Your task to perform on an android device: open chrome privacy settings Image 0: 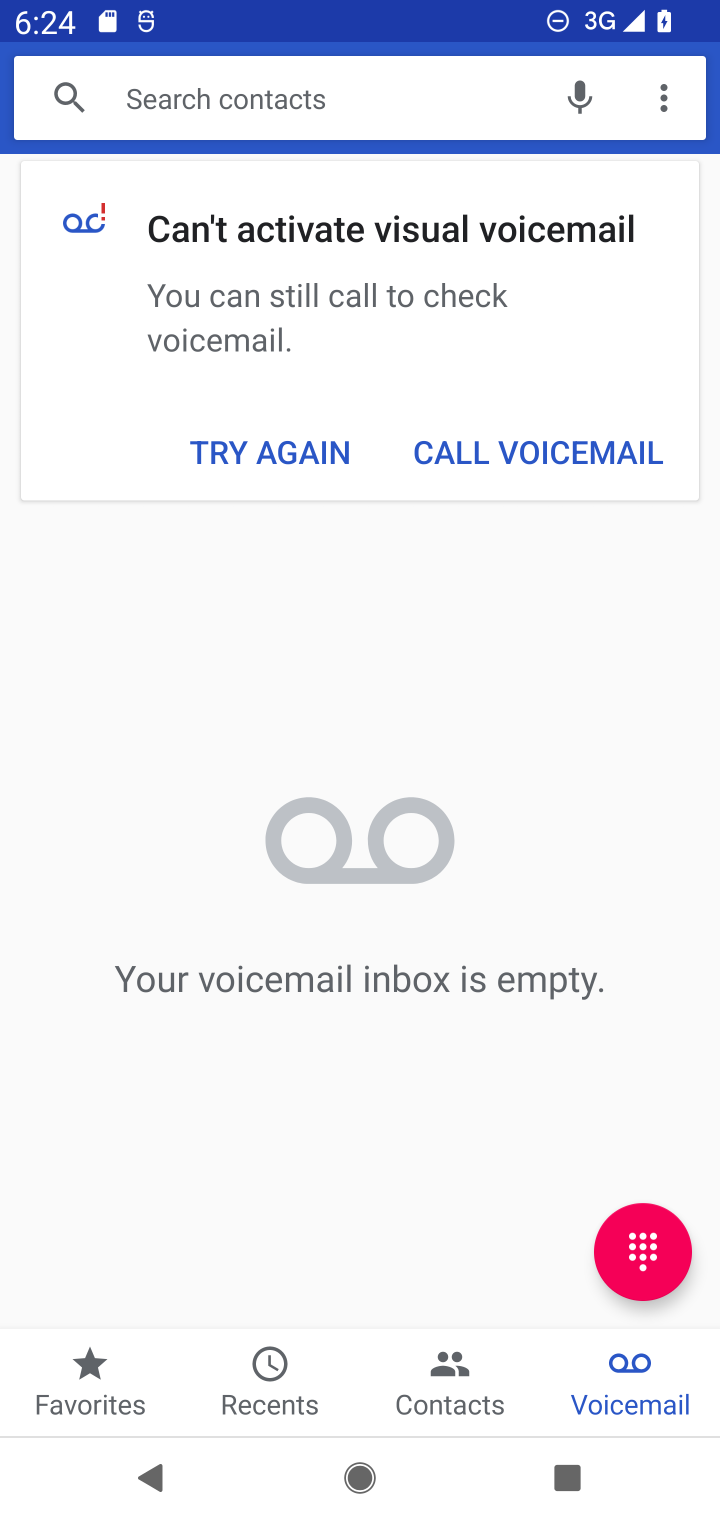
Step 0: press home button
Your task to perform on an android device: open chrome privacy settings Image 1: 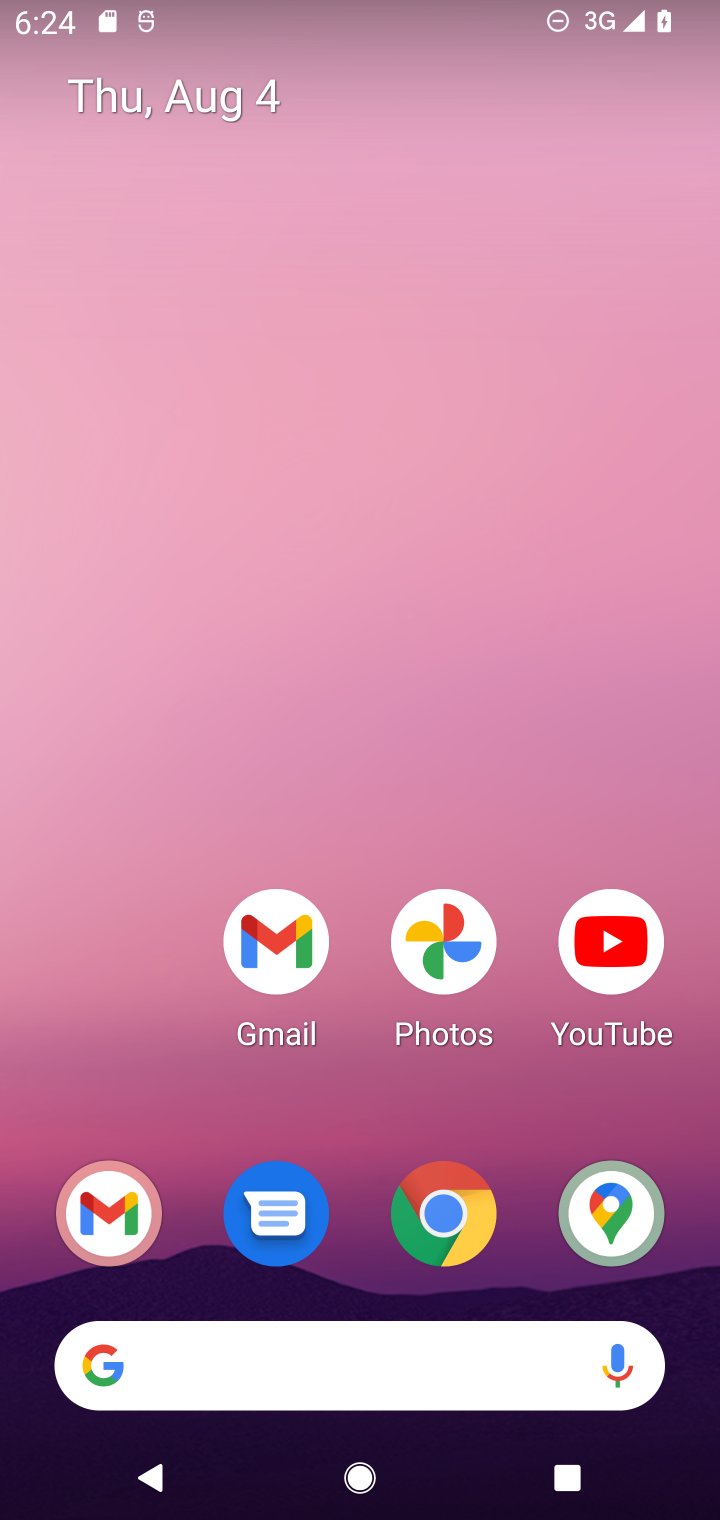
Step 1: drag from (163, 1148) to (167, 412)
Your task to perform on an android device: open chrome privacy settings Image 2: 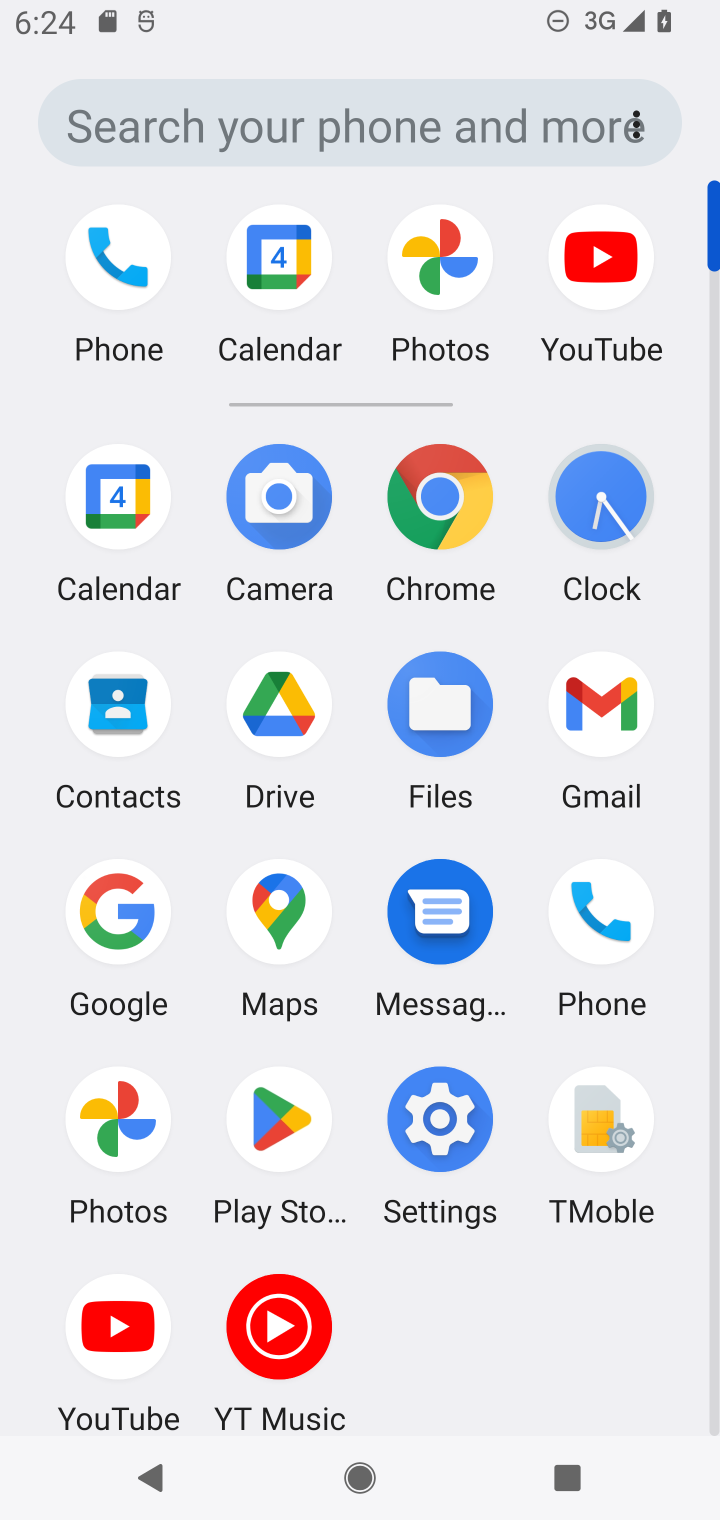
Step 2: click (461, 495)
Your task to perform on an android device: open chrome privacy settings Image 3: 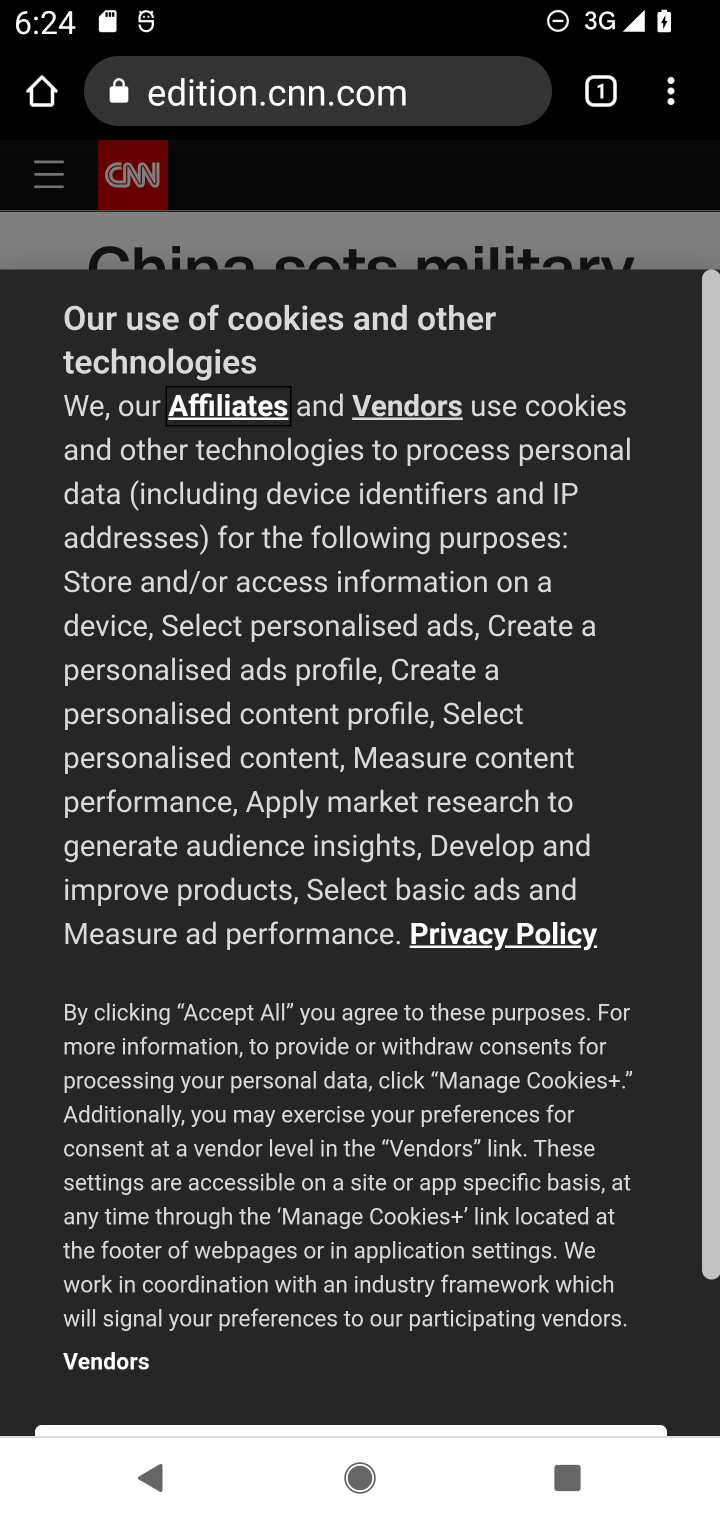
Step 3: click (673, 101)
Your task to perform on an android device: open chrome privacy settings Image 4: 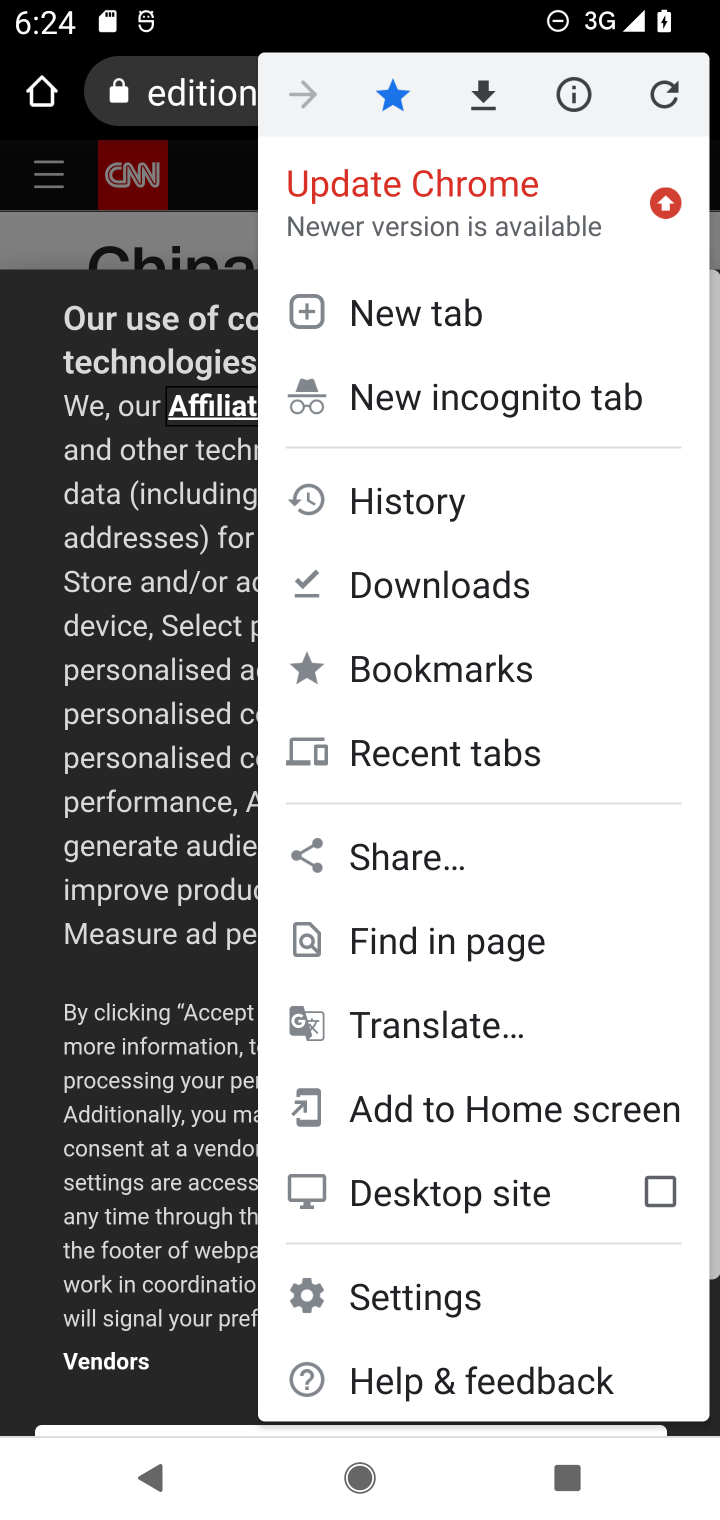
Step 4: click (501, 1298)
Your task to perform on an android device: open chrome privacy settings Image 5: 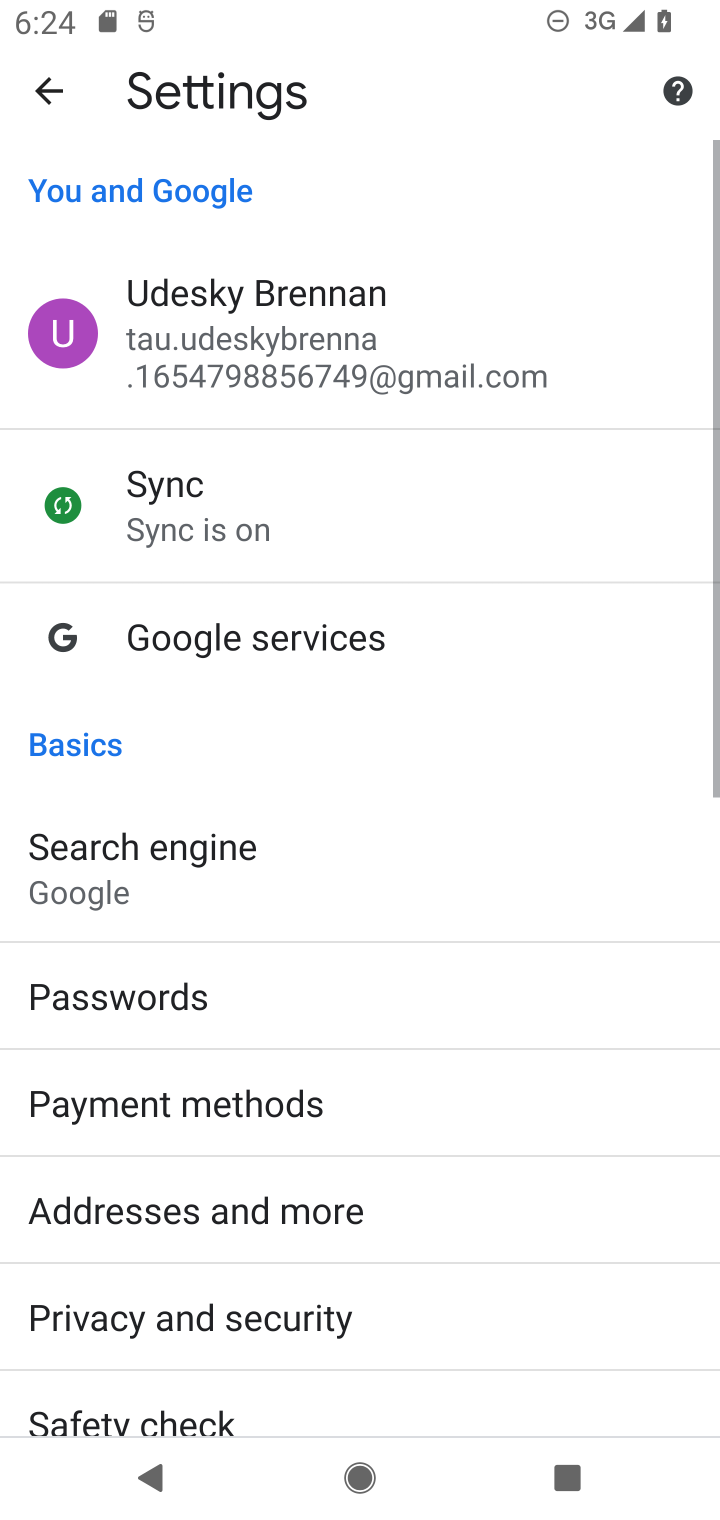
Step 5: drag from (517, 1144) to (548, 864)
Your task to perform on an android device: open chrome privacy settings Image 6: 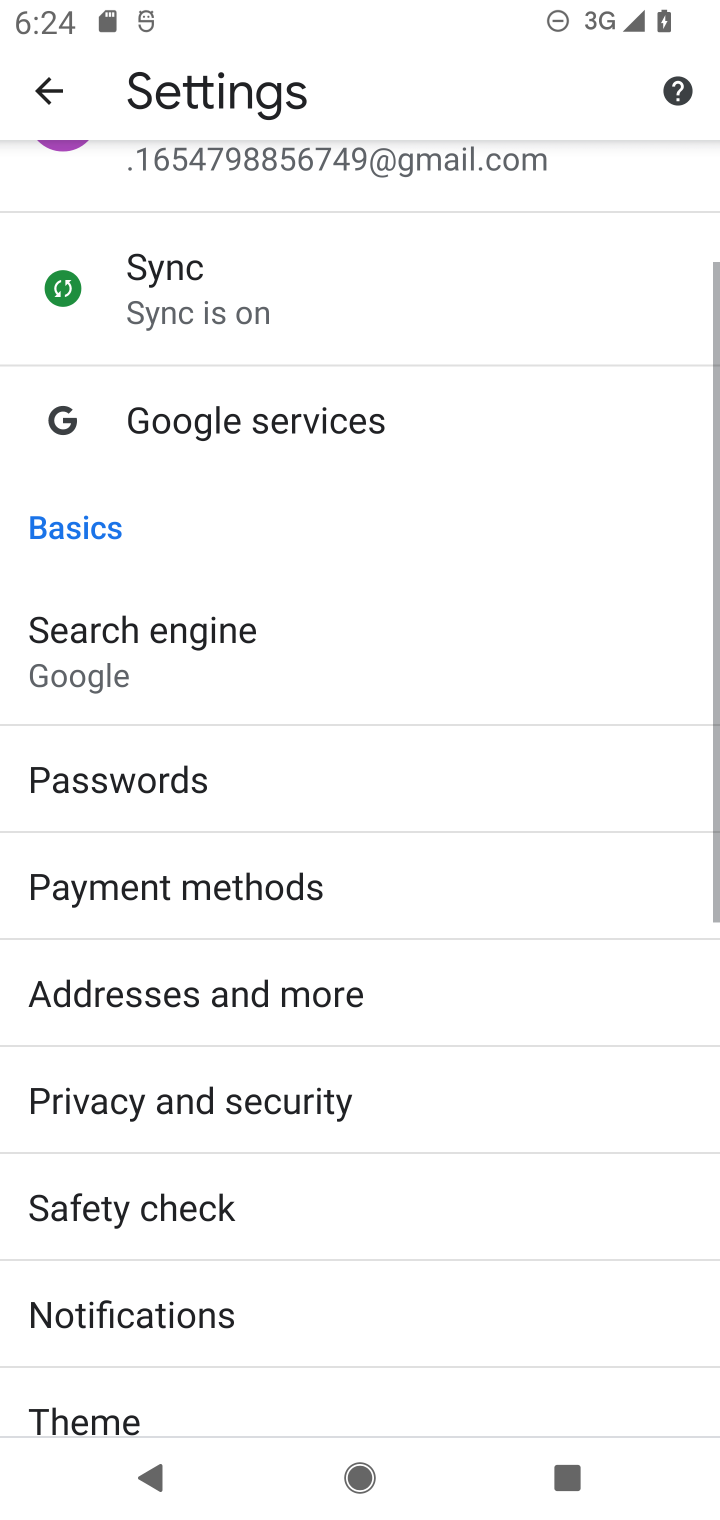
Step 6: drag from (524, 1144) to (528, 887)
Your task to perform on an android device: open chrome privacy settings Image 7: 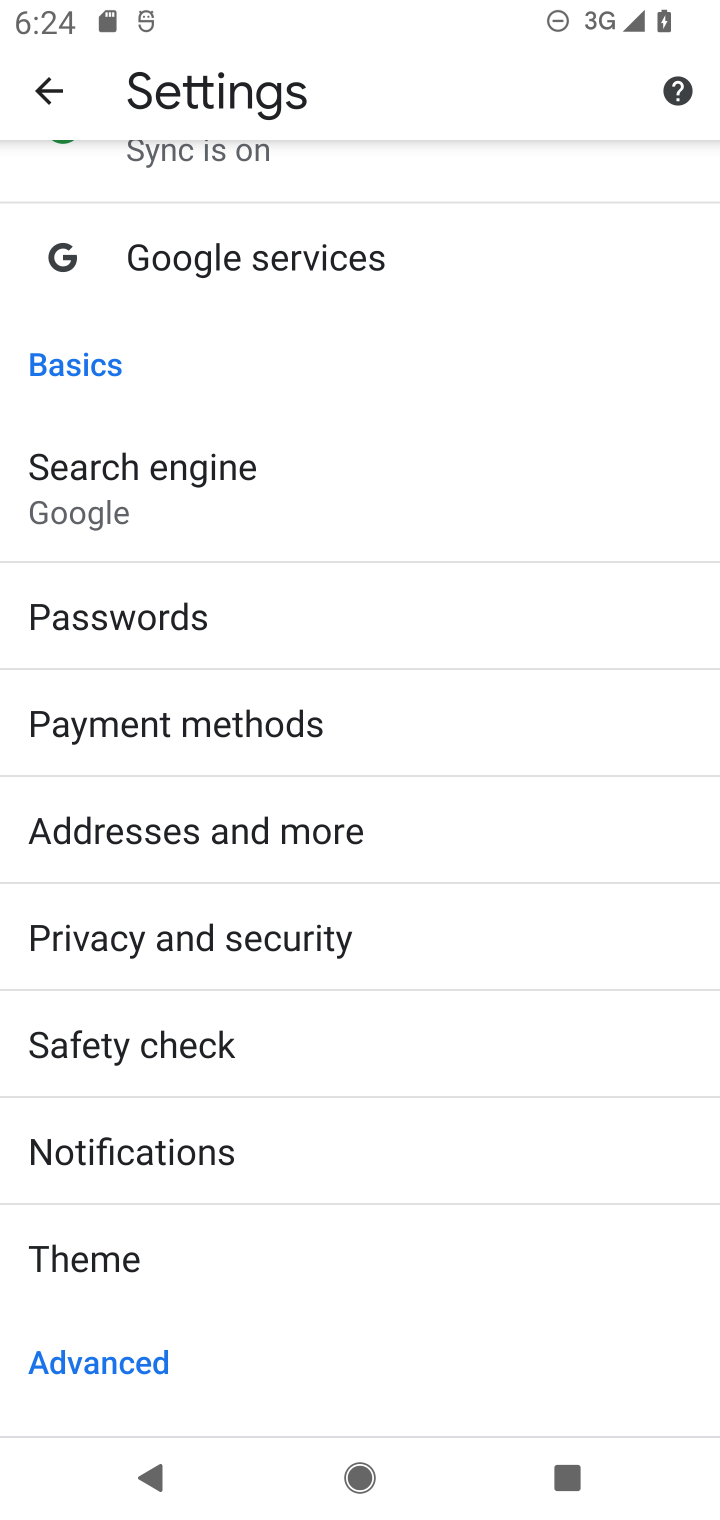
Step 7: drag from (491, 1242) to (512, 869)
Your task to perform on an android device: open chrome privacy settings Image 8: 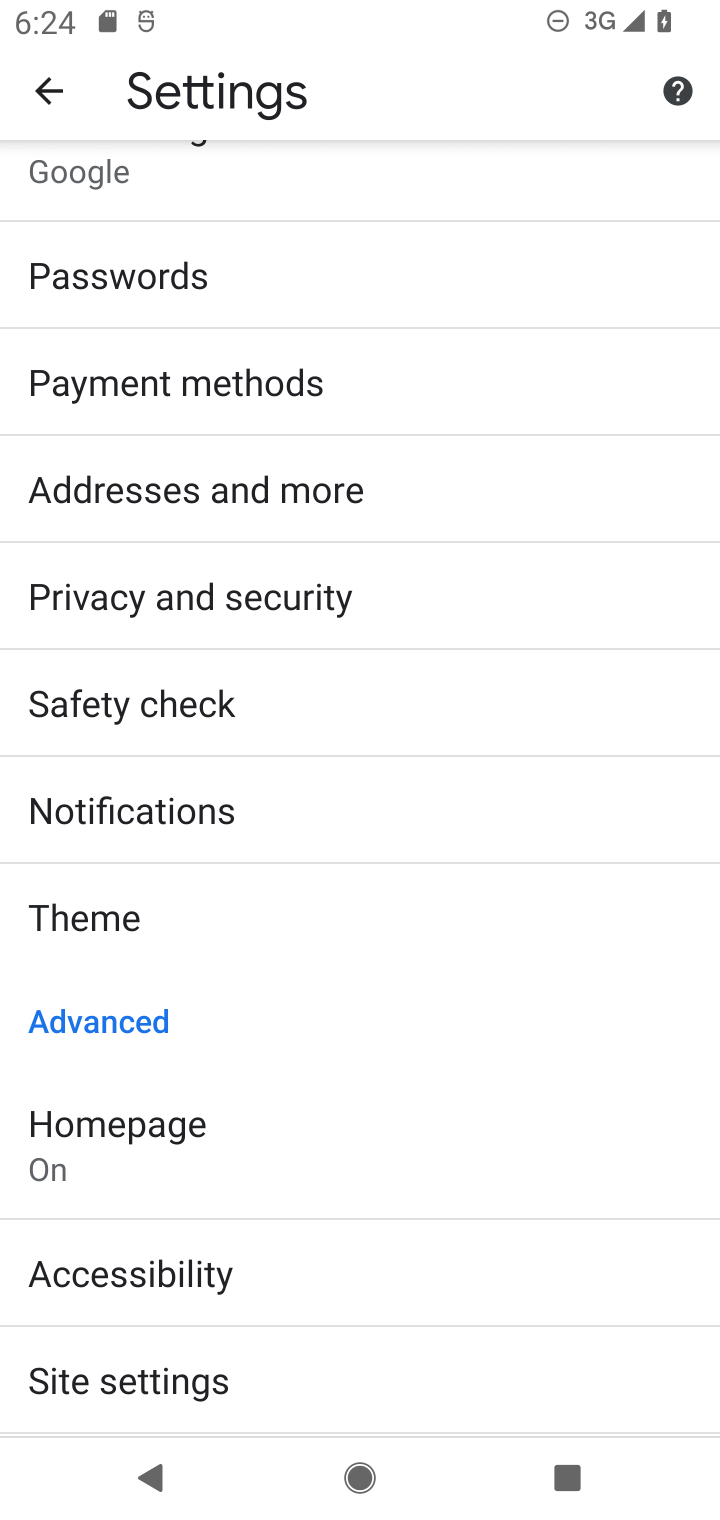
Step 8: drag from (486, 1210) to (518, 853)
Your task to perform on an android device: open chrome privacy settings Image 9: 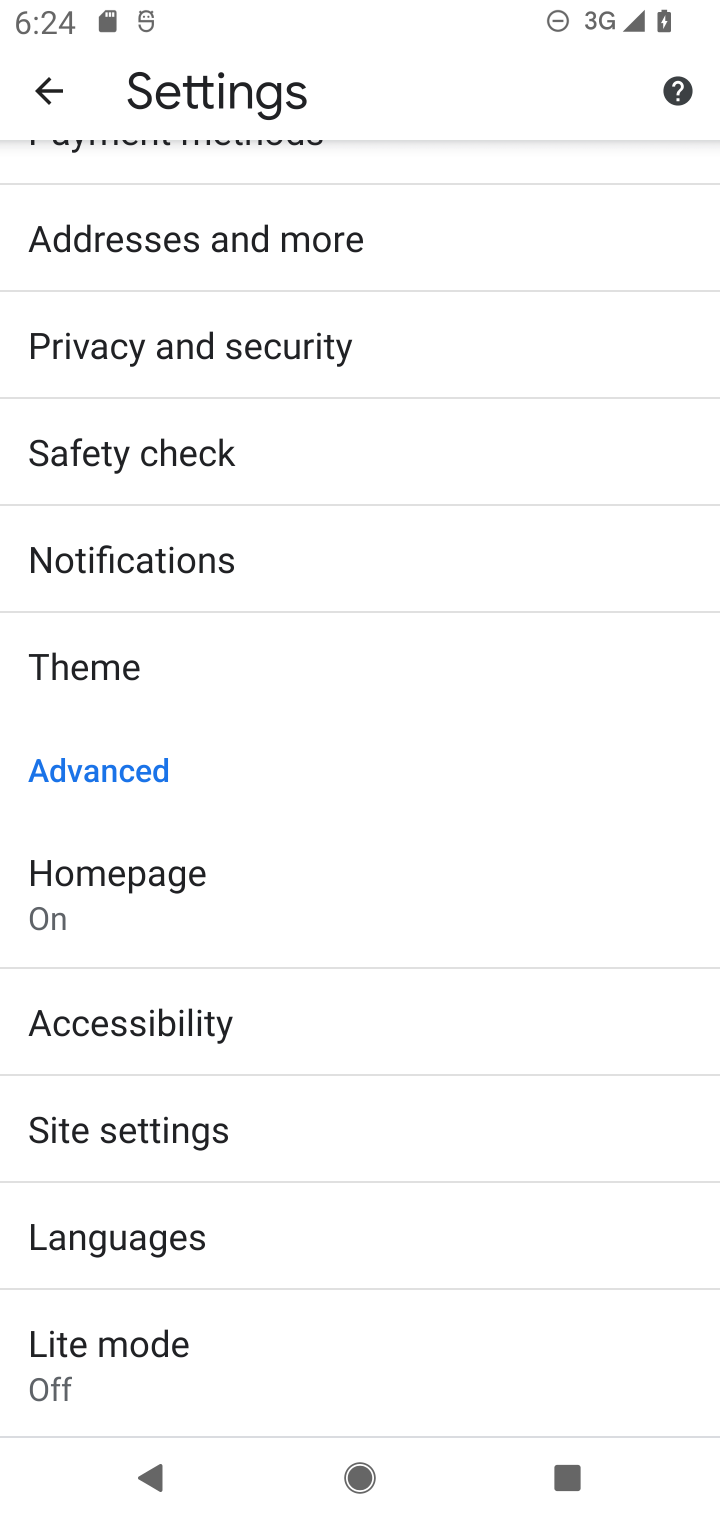
Step 9: drag from (504, 1287) to (527, 902)
Your task to perform on an android device: open chrome privacy settings Image 10: 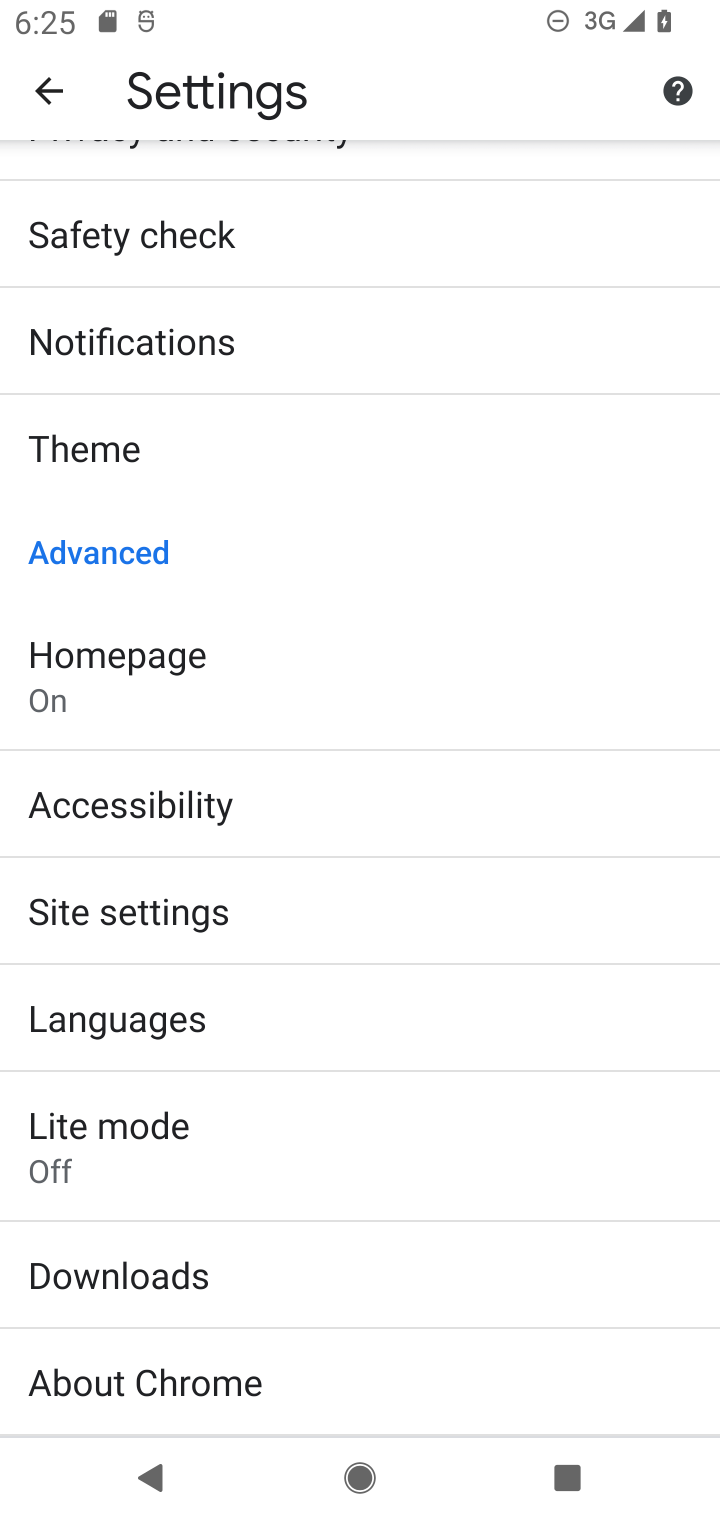
Step 10: drag from (431, 1261) to (456, 1001)
Your task to perform on an android device: open chrome privacy settings Image 11: 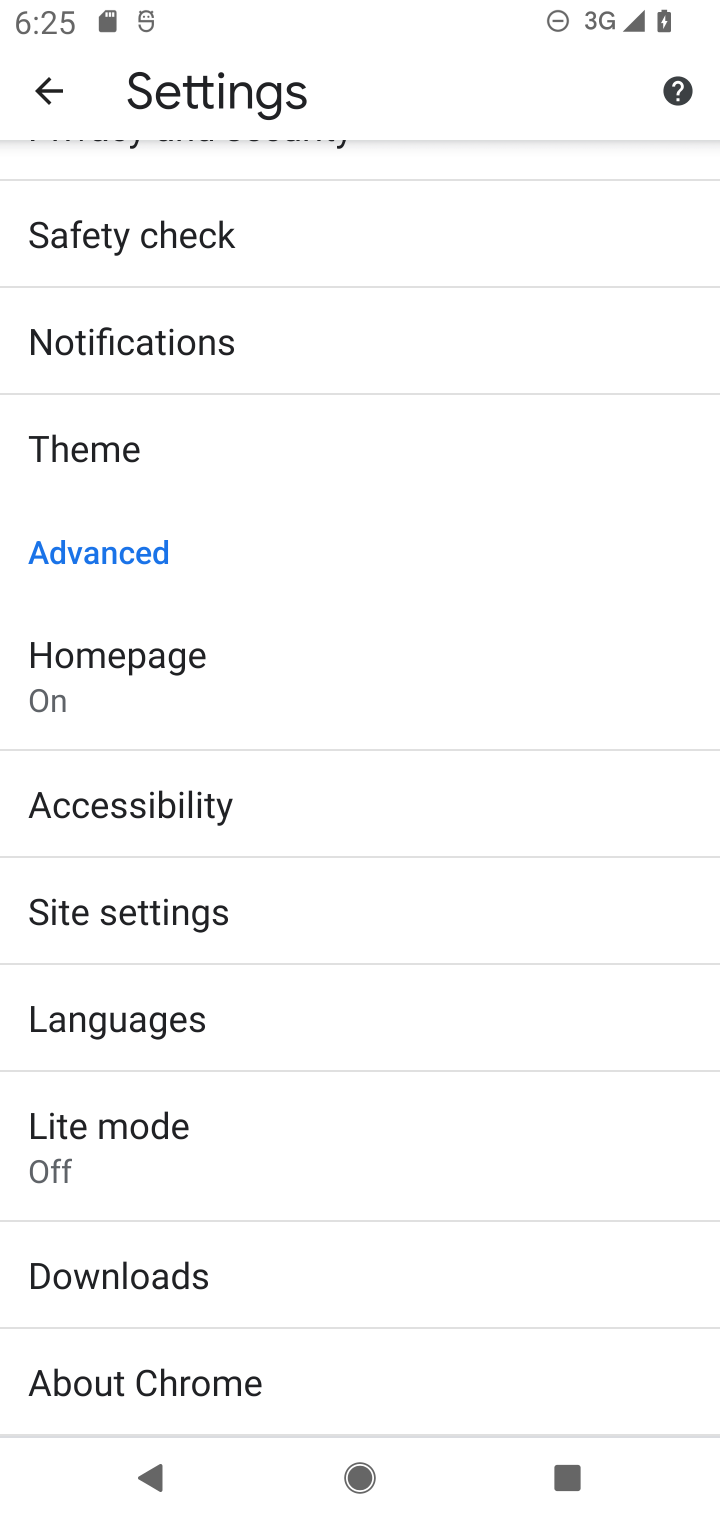
Step 11: drag from (412, 606) to (420, 827)
Your task to perform on an android device: open chrome privacy settings Image 12: 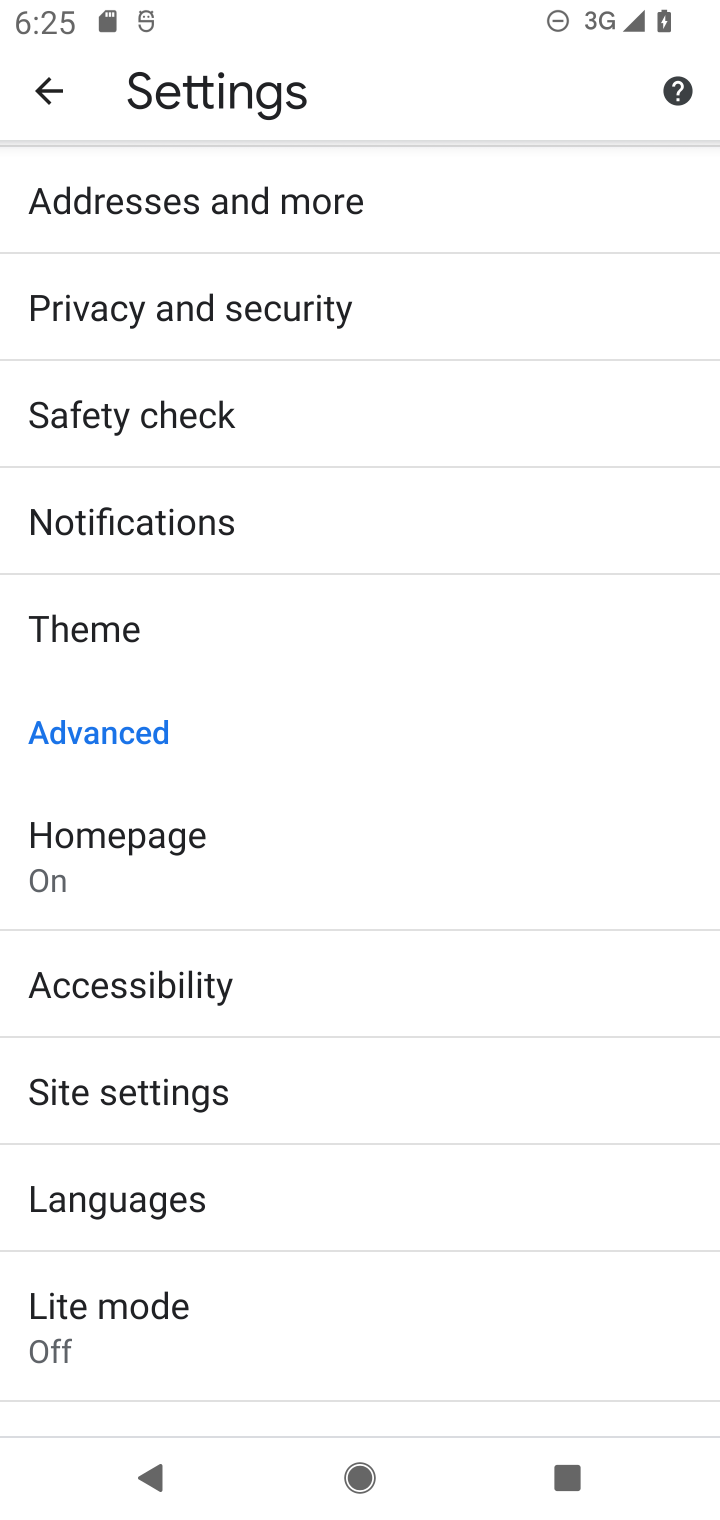
Step 12: click (364, 332)
Your task to perform on an android device: open chrome privacy settings Image 13: 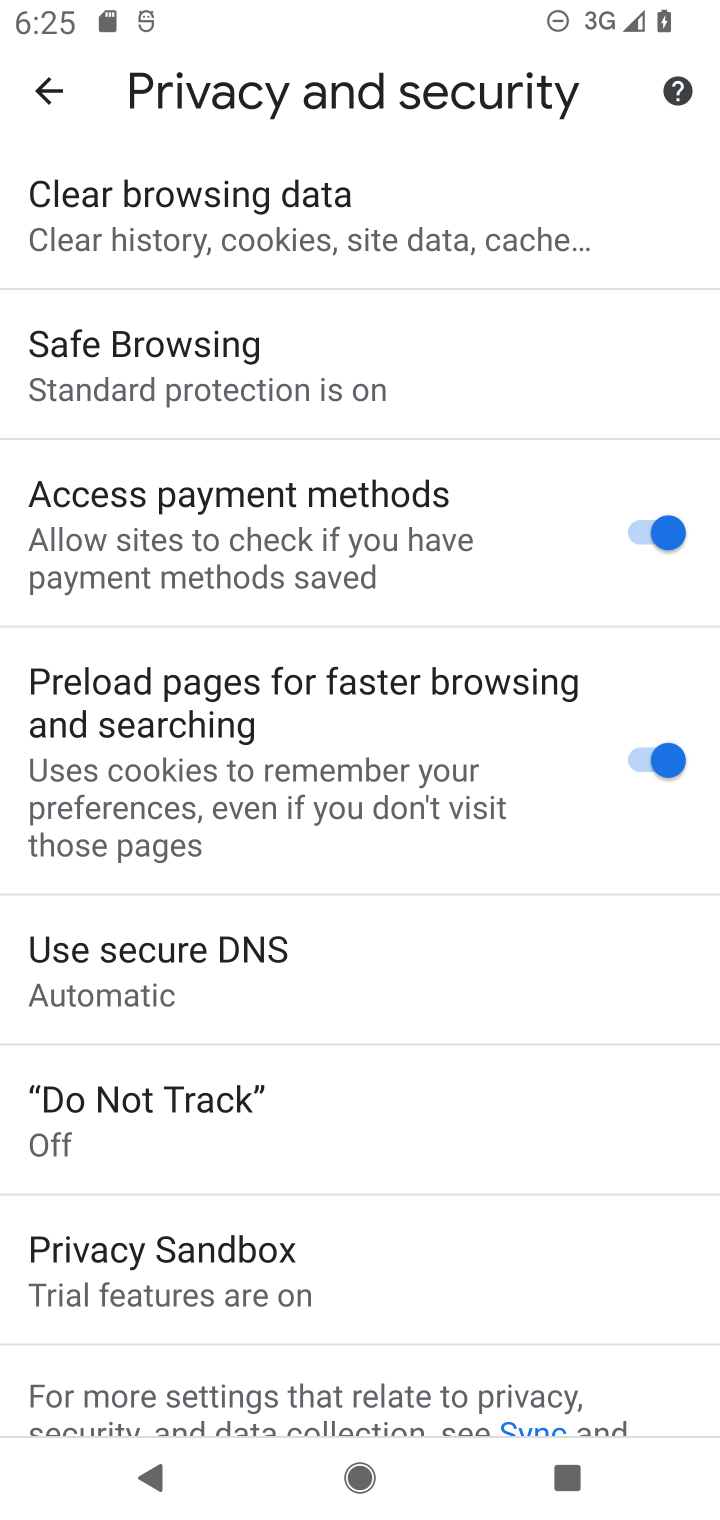
Step 13: task complete